Your task to perform on an android device: open app "Skype" Image 0: 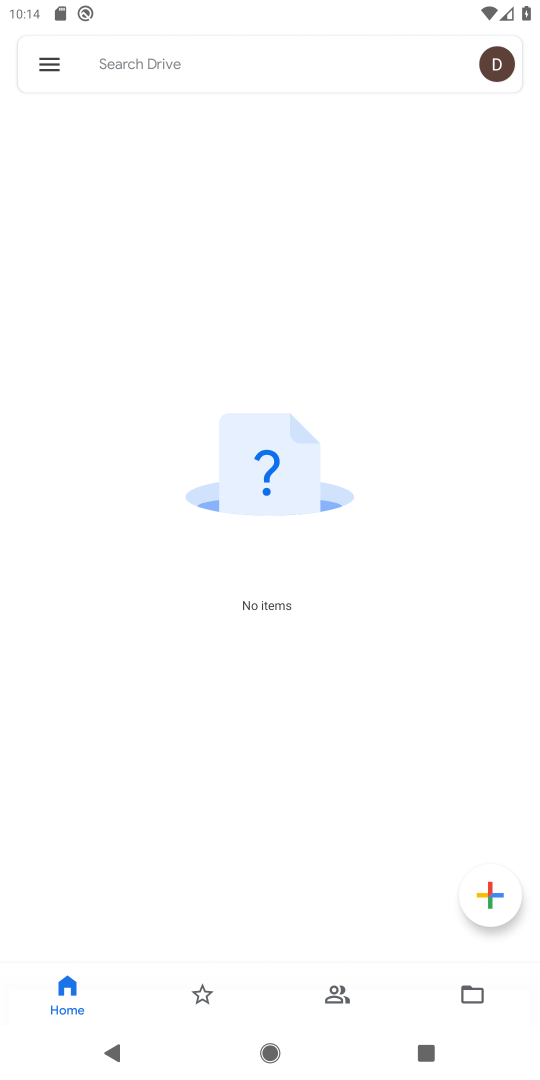
Step 0: task impossible